Your task to perform on an android device: Is it going to rain this weekend? Image 0: 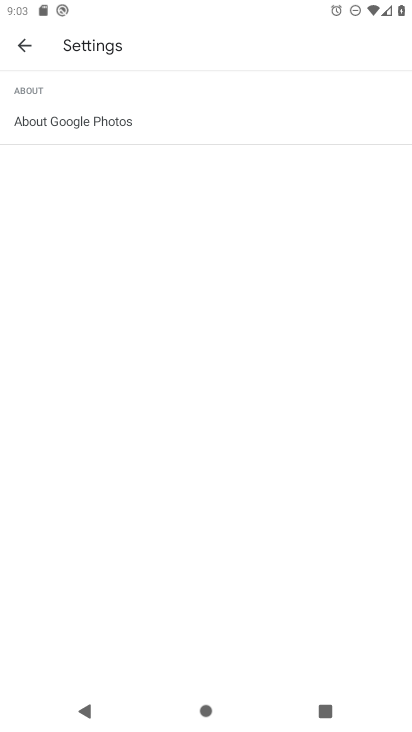
Step 0: drag from (47, 706) to (220, 195)
Your task to perform on an android device: Is it going to rain this weekend? Image 1: 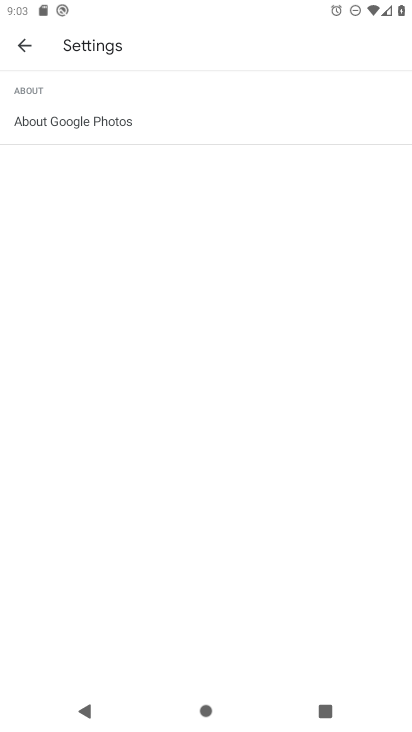
Step 1: press home button
Your task to perform on an android device: Is it going to rain this weekend? Image 2: 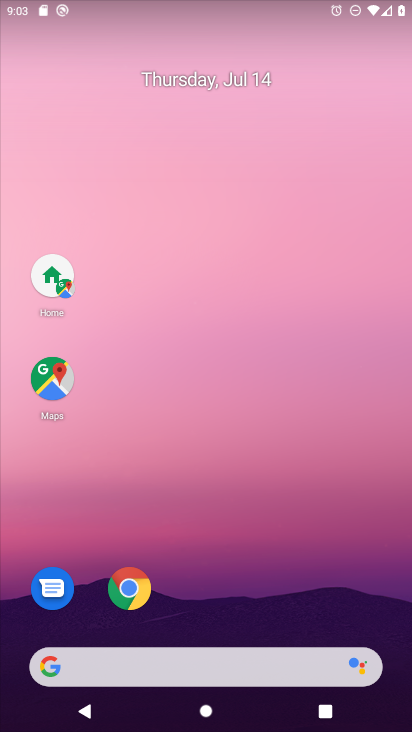
Step 2: click (140, 663)
Your task to perform on an android device: Is it going to rain this weekend? Image 3: 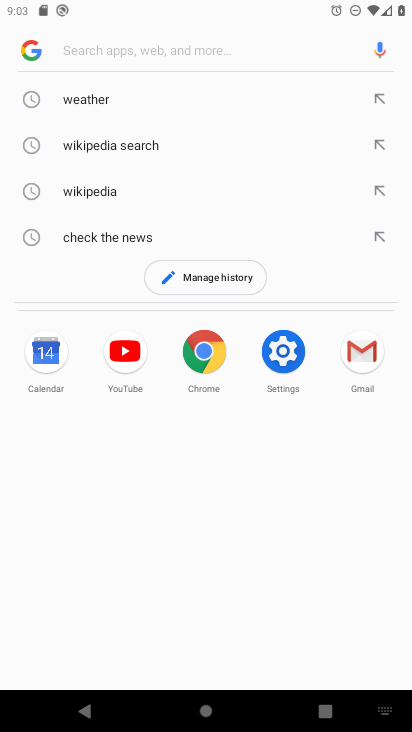
Step 3: type "Is it going to rain this weekend?"
Your task to perform on an android device: Is it going to rain this weekend? Image 4: 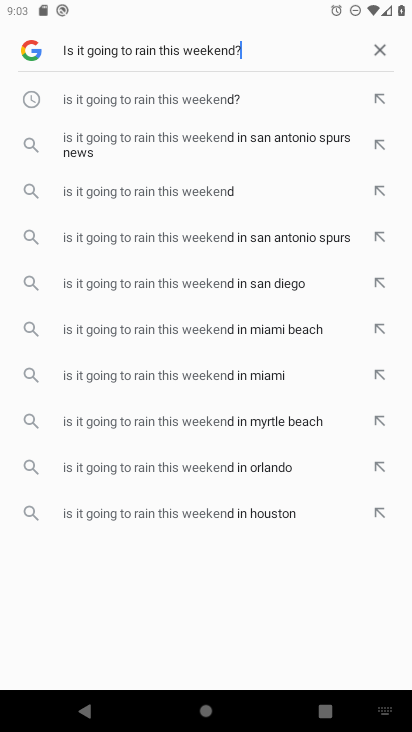
Step 4: type ""
Your task to perform on an android device: Is it going to rain this weekend? Image 5: 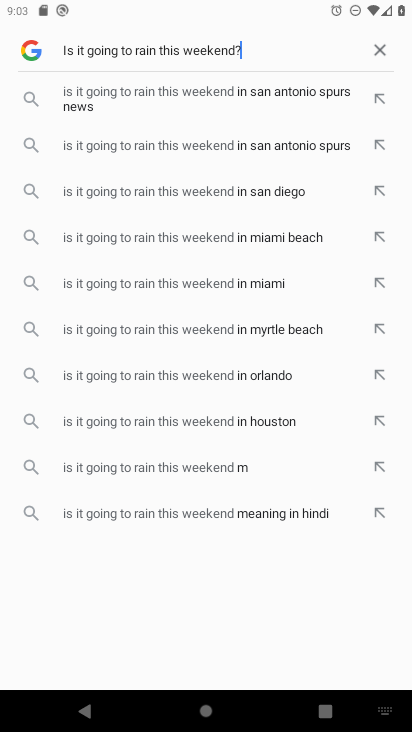
Step 5: type ""
Your task to perform on an android device: Is it going to rain this weekend? Image 6: 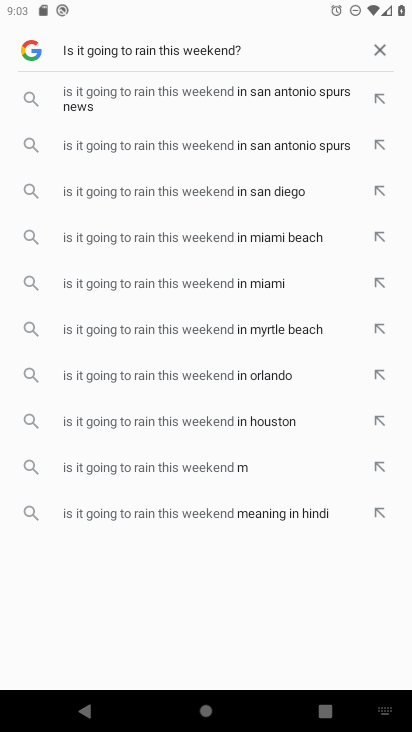
Step 6: type ""
Your task to perform on an android device: Is it going to rain this weekend? Image 7: 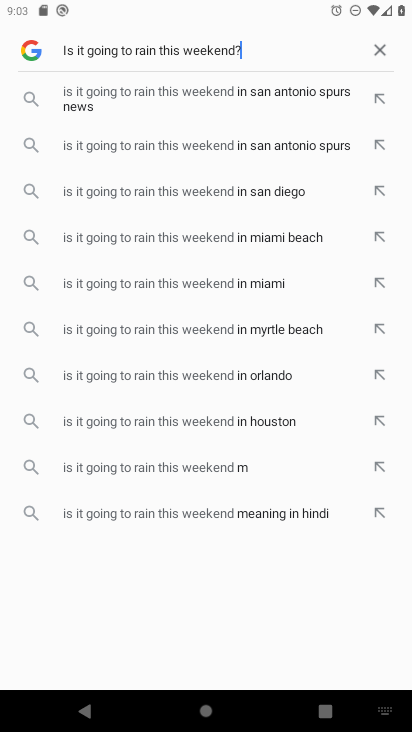
Step 7: task complete